Your task to perform on an android device: delete browsing data in the chrome app Image 0: 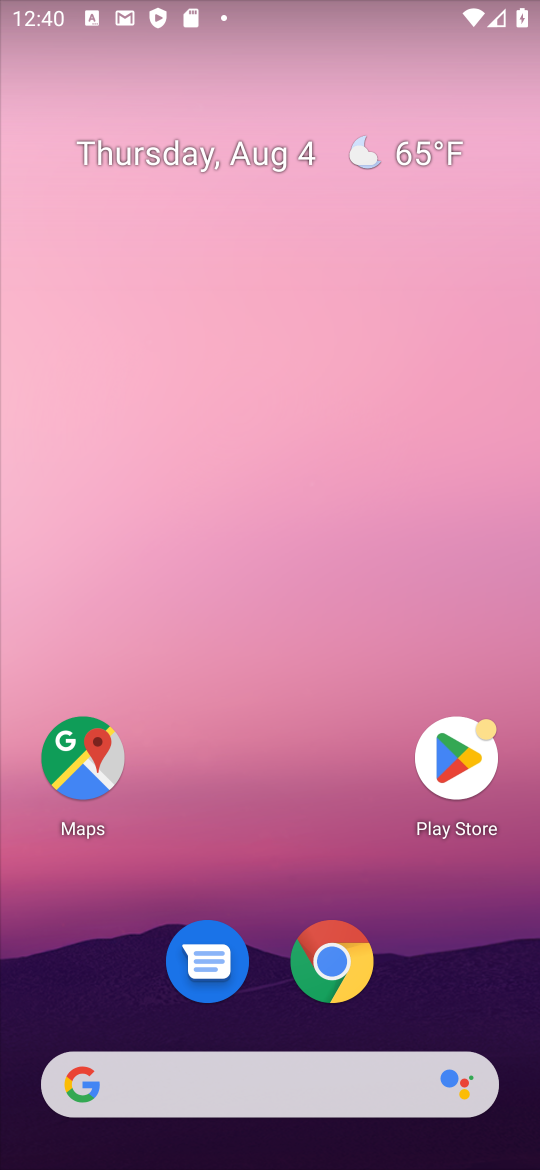
Step 0: click (361, 957)
Your task to perform on an android device: delete browsing data in the chrome app Image 1: 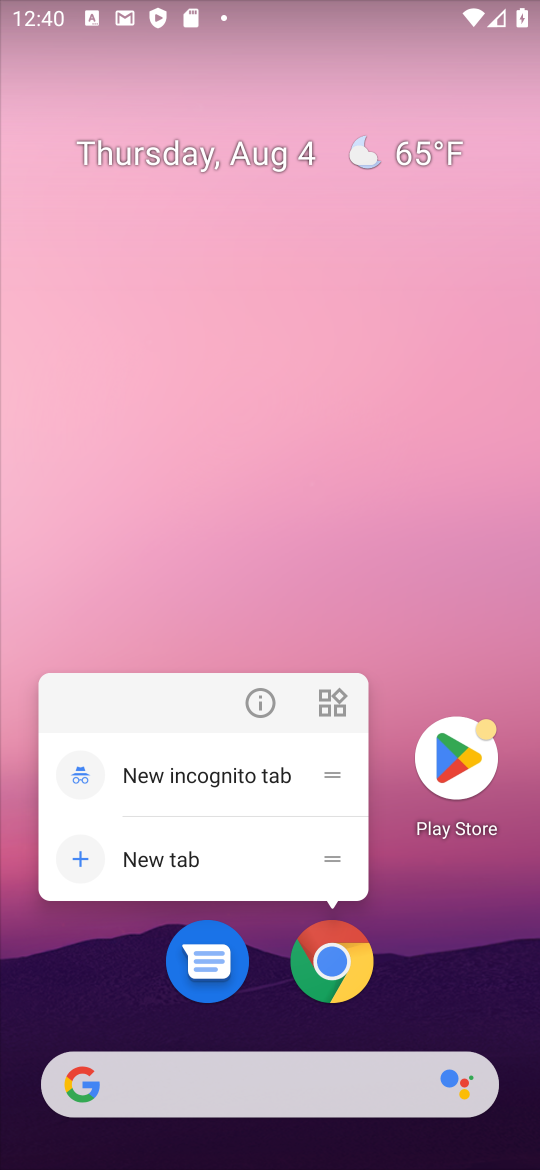
Step 1: click (338, 957)
Your task to perform on an android device: delete browsing data in the chrome app Image 2: 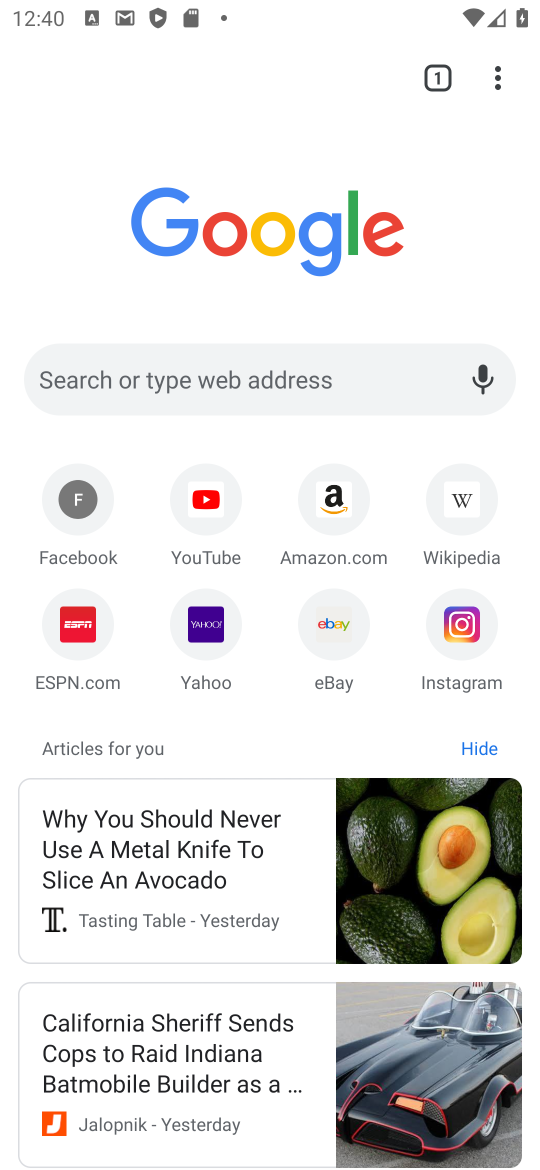
Step 2: click (498, 81)
Your task to perform on an android device: delete browsing data in the chrome app Image 3: 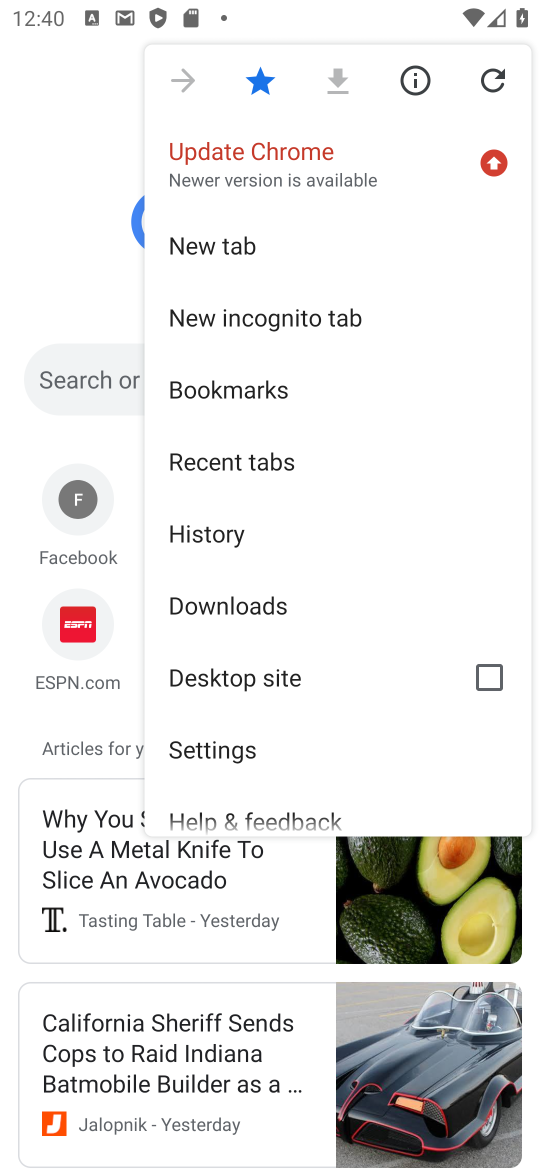
Step 3: click (237, 531)
Your task to perform on an android device: delete browsing data in the chrome app Image 4: 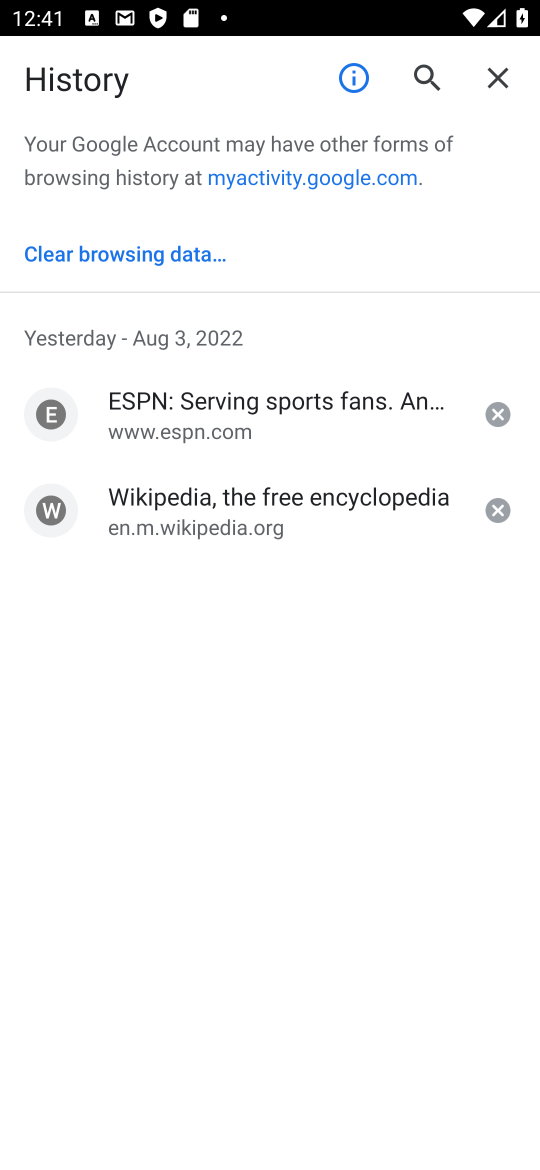
Step 4: click (188, 252)
Your task to perform on an android device: delete browsing data in the chrome app Image 5: 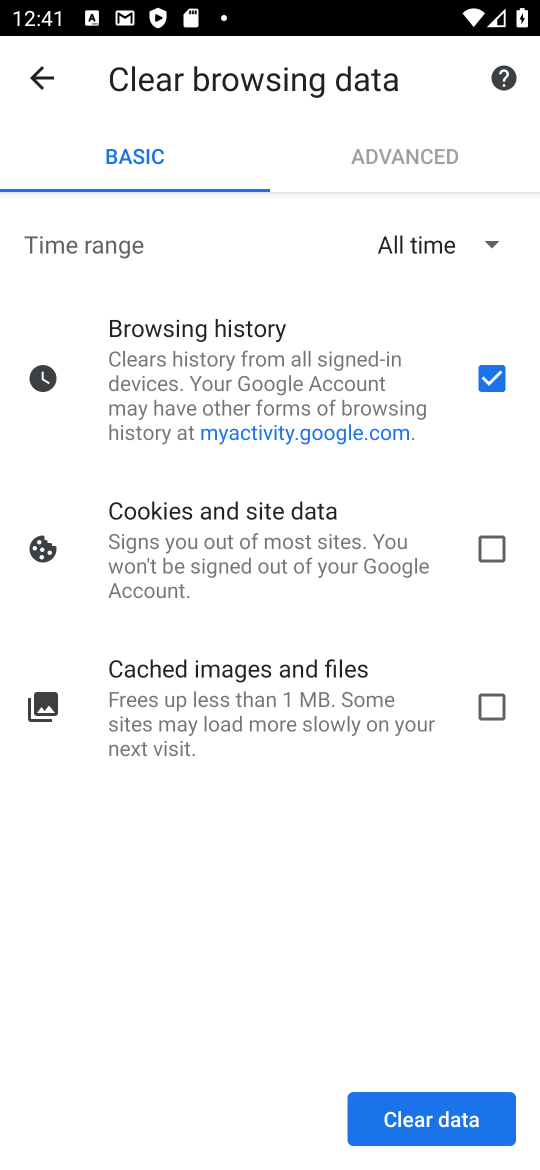
Step 5: click (484, 549)
Your task to perform on an android device: delete browsing data in the chrome app Image 6: 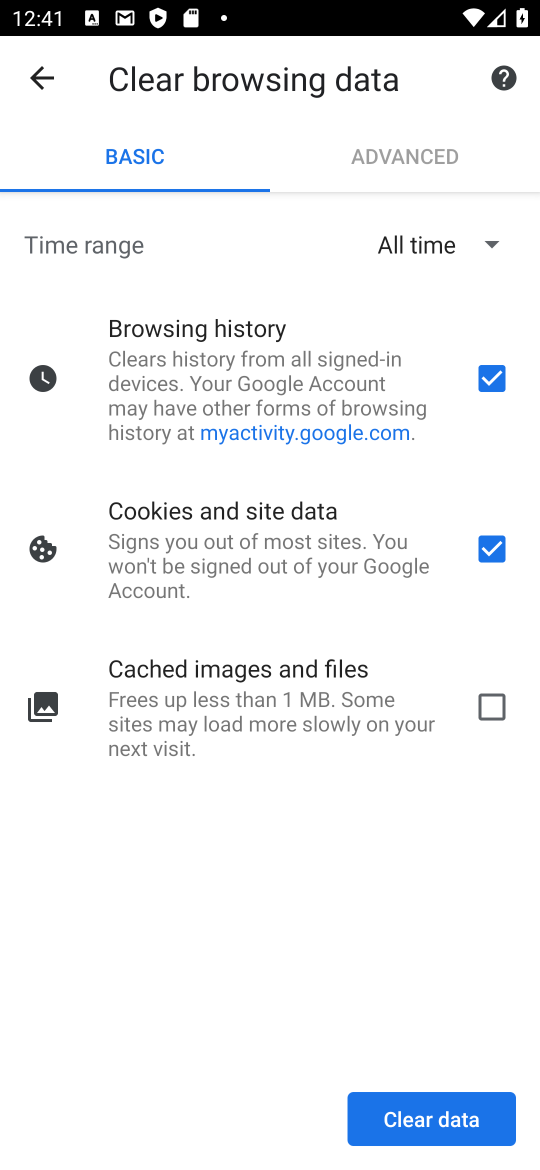
Step 6: click (484, 695)
Your task to perform on an android device: delete browsing data in the chrome app Image 7: 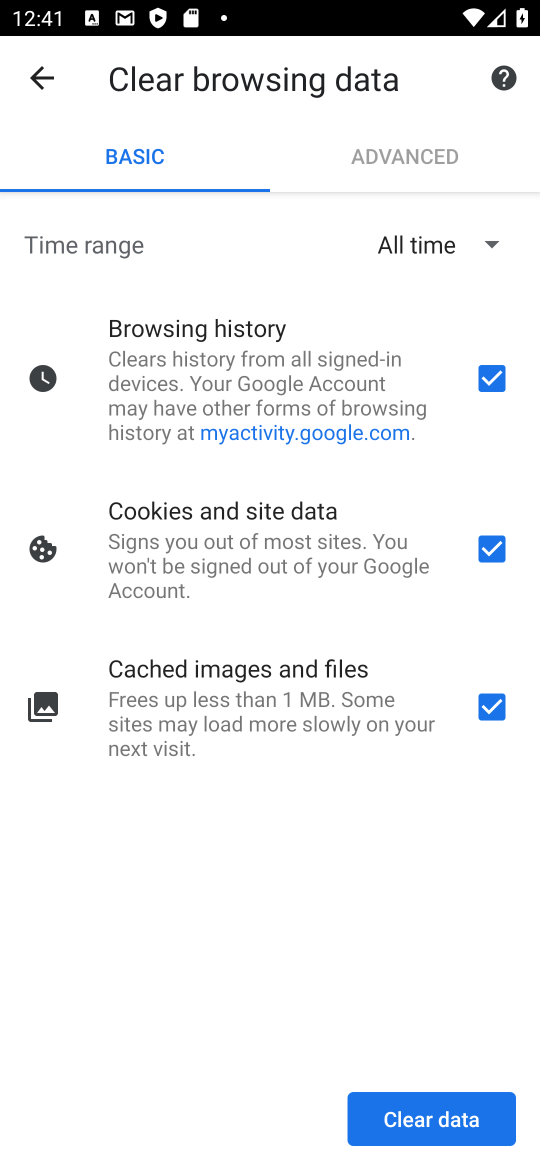
Step 7: click (464, 1124)
Your task to perform on an android device: delete browsing data in the chrome app Image 8: 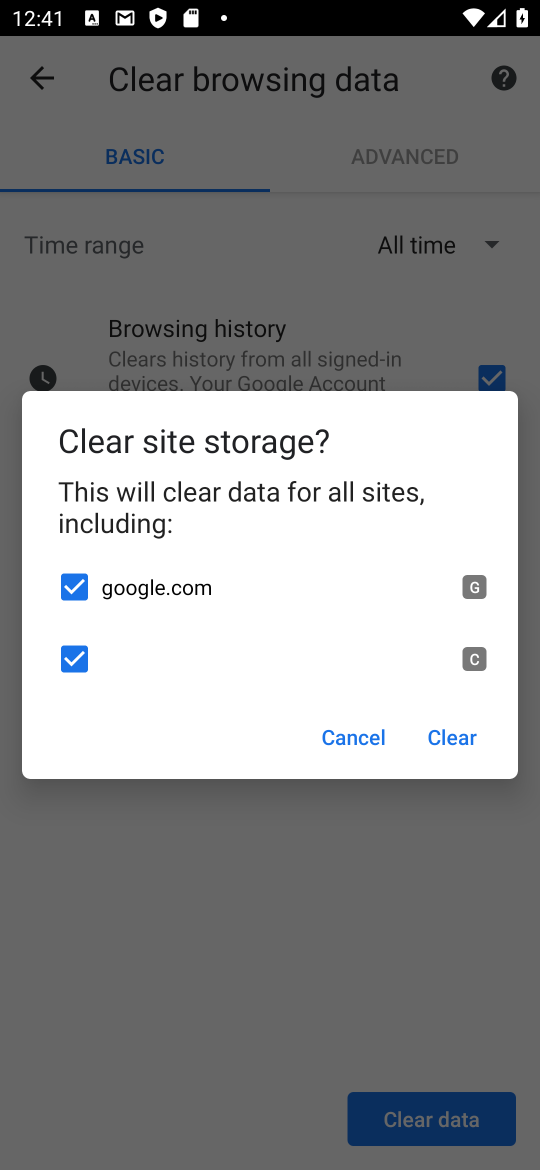
Step 8: click (466, 733)
Your task to perform on an android device: delete browsing data in the chrome app Image 9: 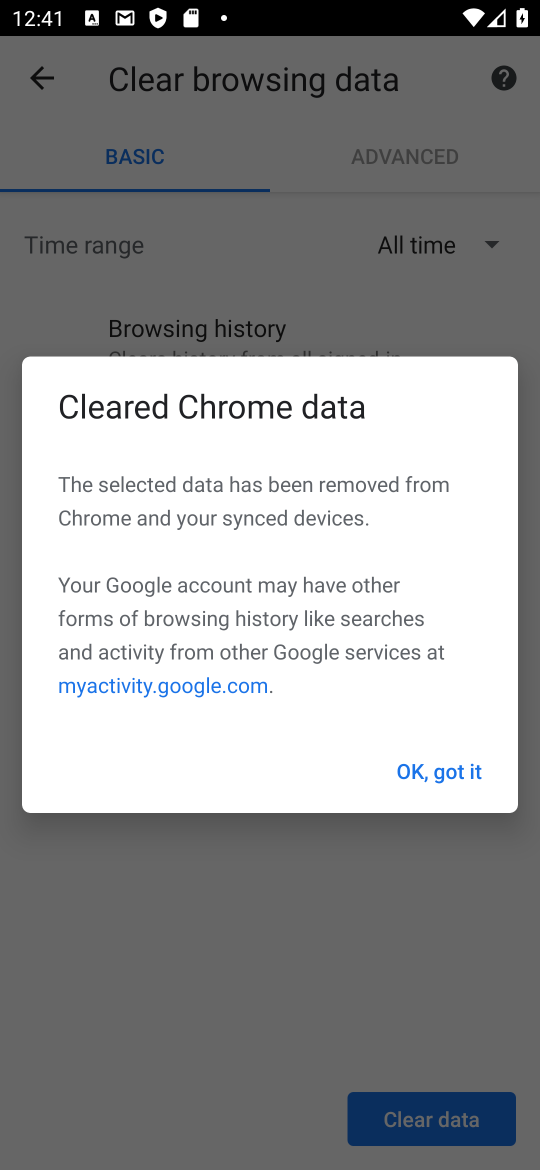
Step 9: click (456, 770)
Your task to perform on an android device: delete browsing data in the chrome app Image 10: 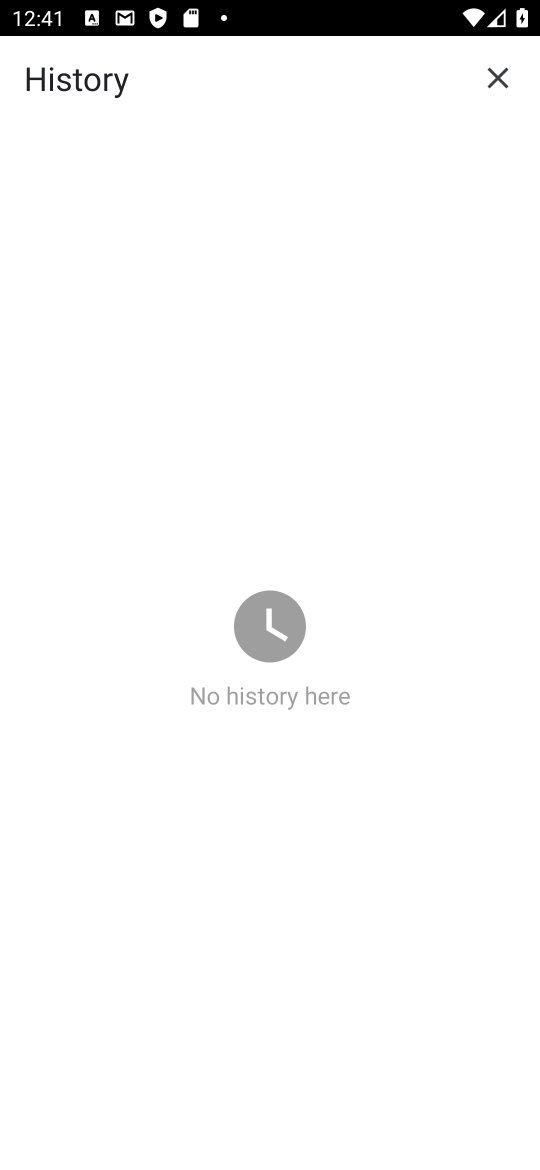
Step 10: task complete